Your task to perform on an android device: star an email in the gmail app Image 0: 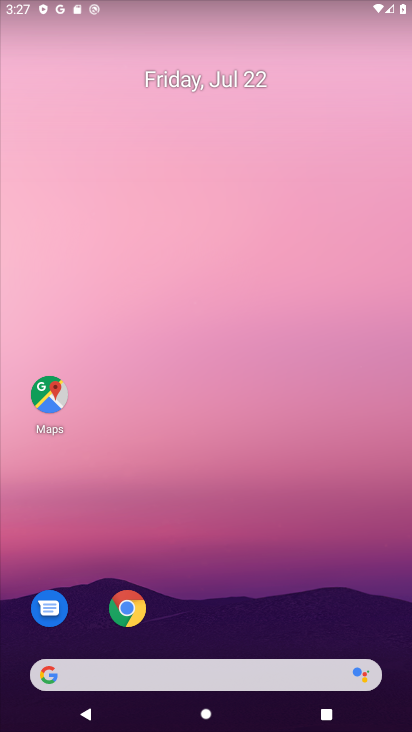
Step 0: task complete